Your task to perform on an android device: set an alarm Image 0: 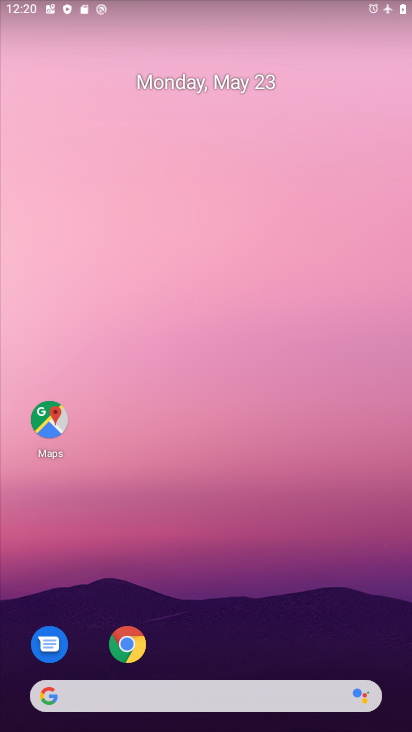
Step 0: drag from (343, 515) to (219, 36)
Your task to perform on an android device: set an alarm Image 1: 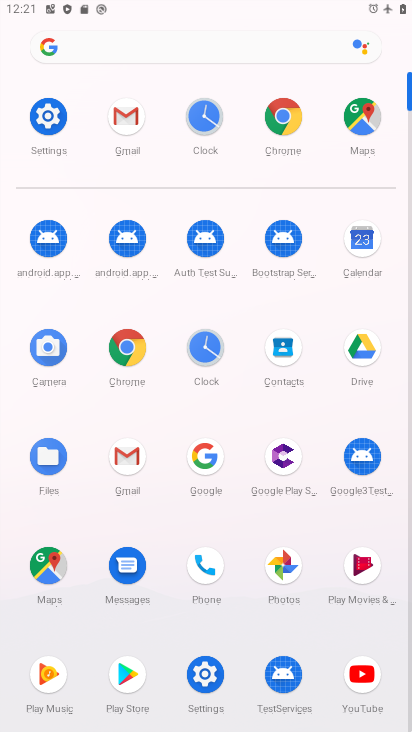
Step 1: click (198, 347)
Your task to perform on an android device: set an alarm Image 2: 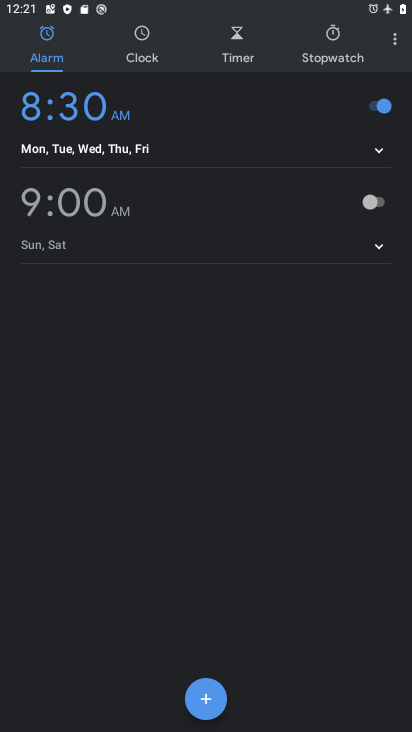
Step 2: click (358, 195)
Your task to perform on an android device: set an alarm Image 3: 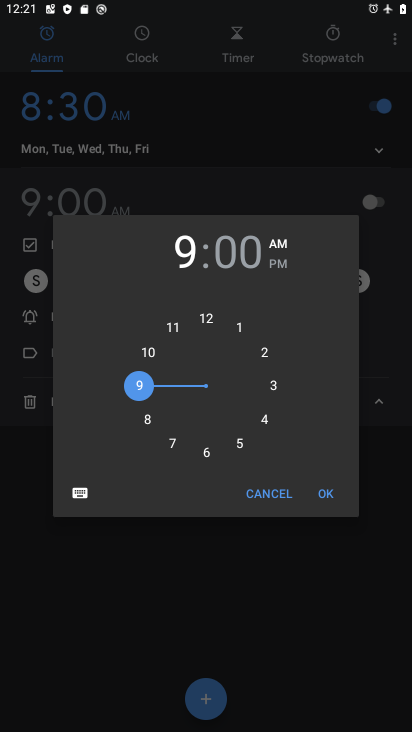
Step 3: click (327, 484)
Your task to perform on an android device: set an alarm Image 4: 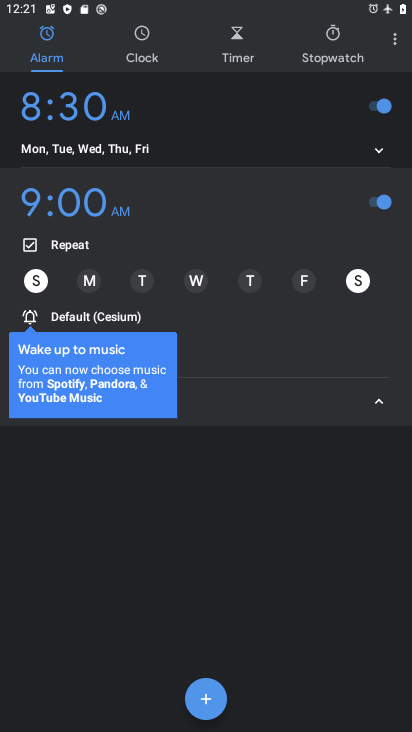
Step 4: task complete